Your task to perform on an android device: open app "Pluto TV - Live TV and Movies" (install if not already installed) Image 0: 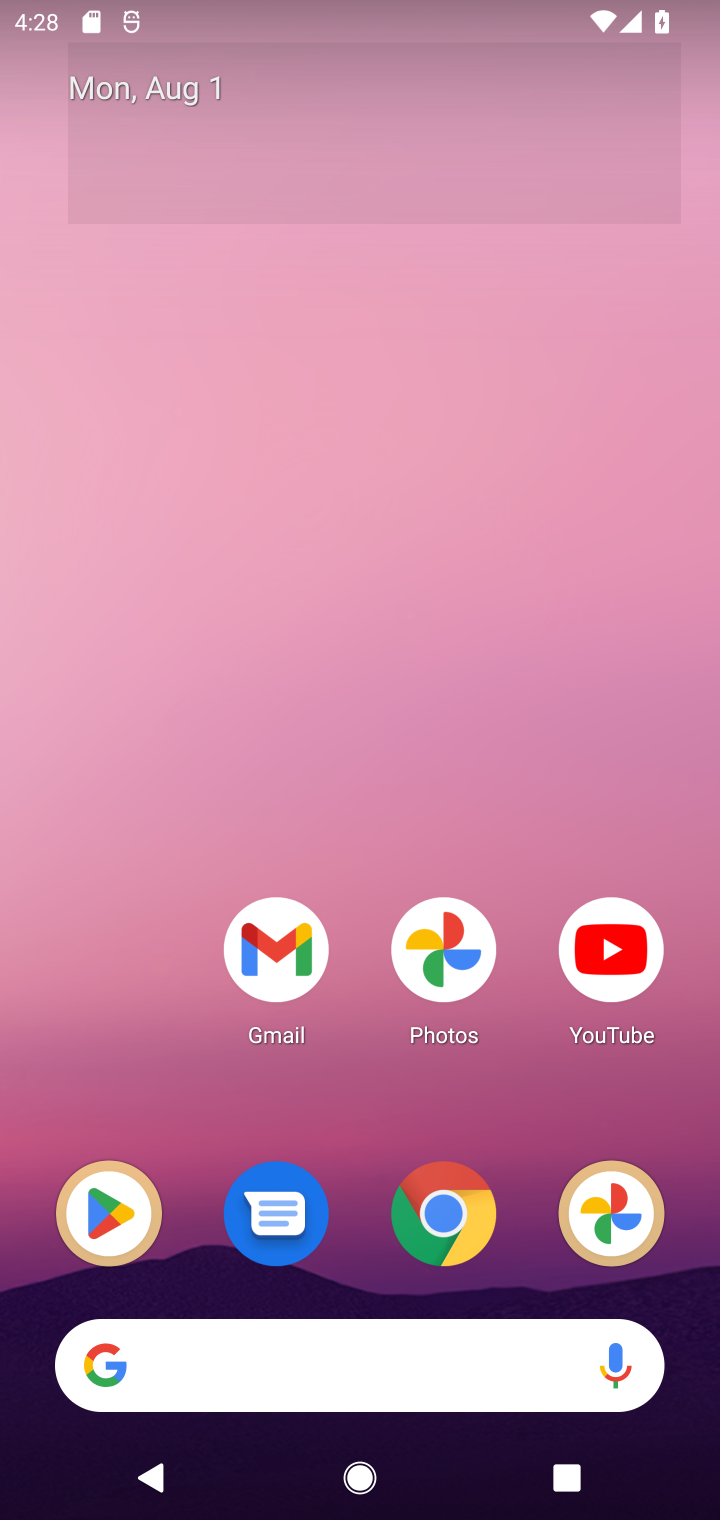
Step 0: drag from (540, 1096) to (527, 0)
Your task to perform on an android device: open app "Pluto TV - Live TV and Movies" (install if not already installed) Image 1: 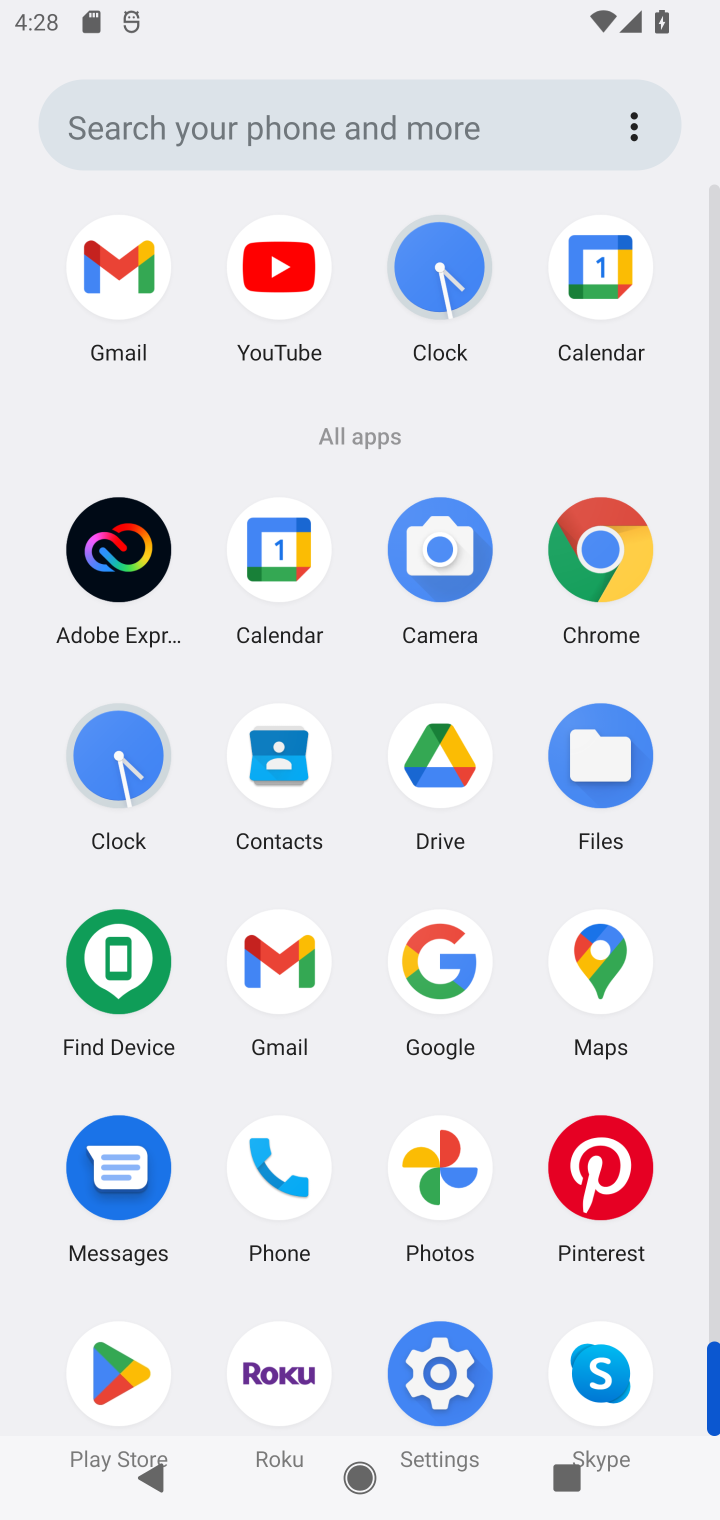
Step 1: click (115, 1364)
Your task to perform on an android device: open app "Pluto TV - Live TV and Movies" (install if not already installed) Image 2: 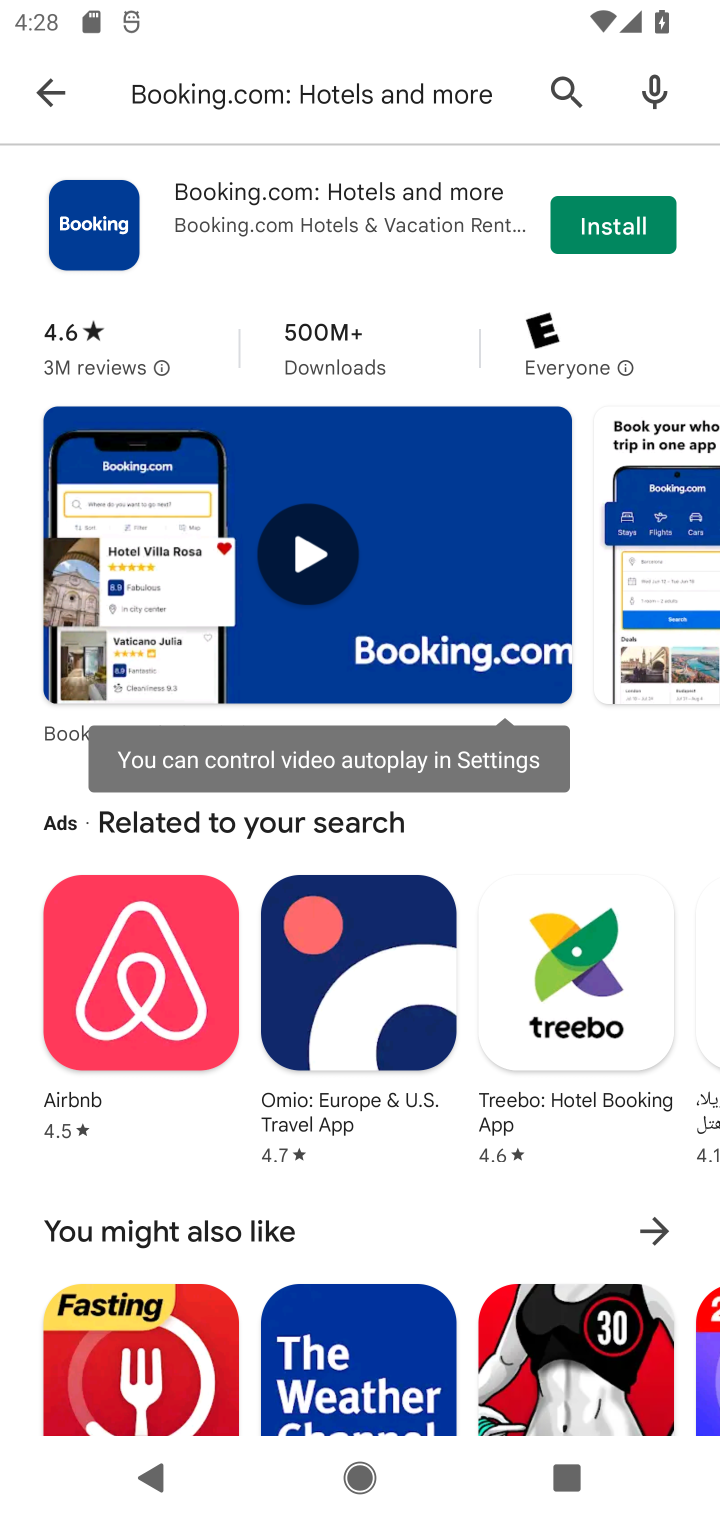
Step 2: click (412, 98)
Your task to perform on an android device: open app "Pluto TV - Live TV and Movies" (install if not already installed) Image 3: 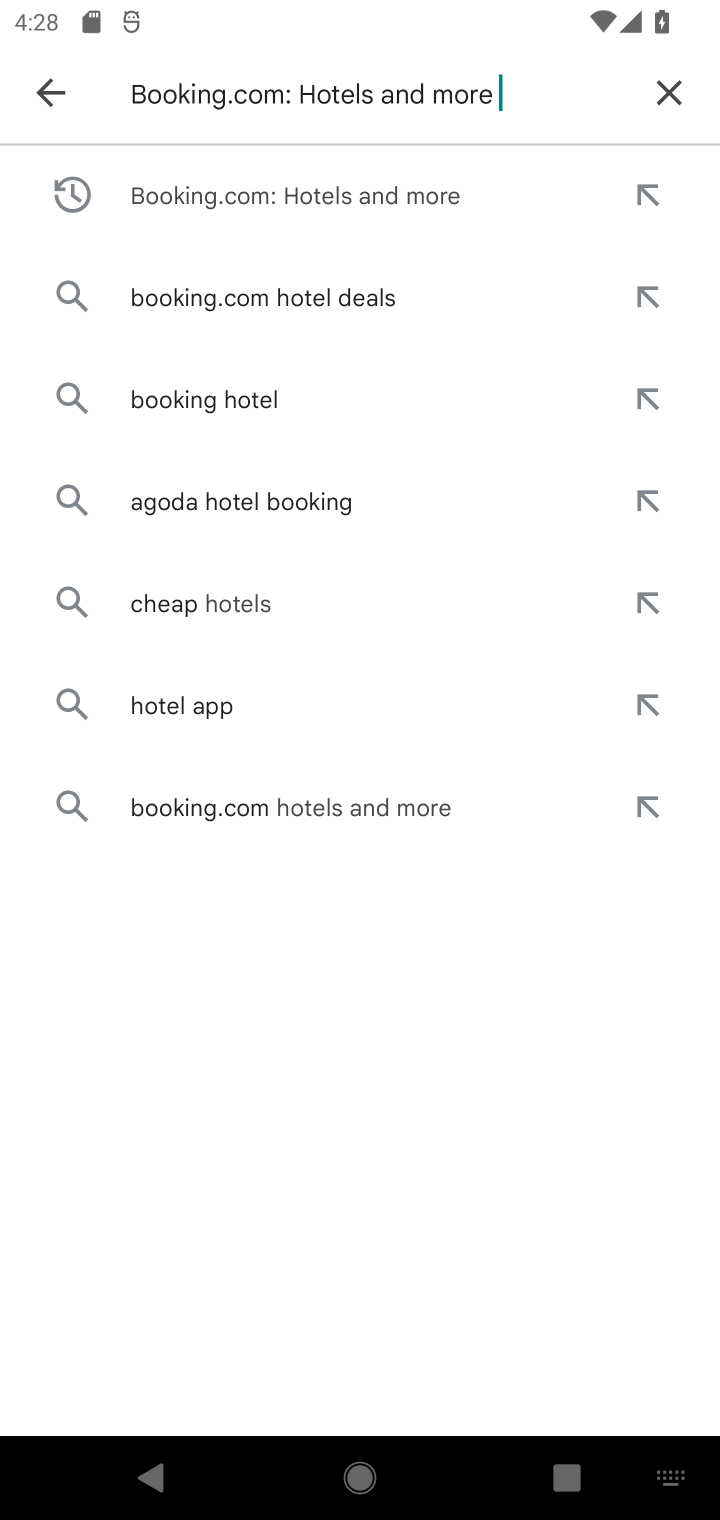
Step 3: click (662, 99)
Your task to perform on an android device: open app "Pluto TV - Live TV and Movies" (install if not already installed) Image 4: 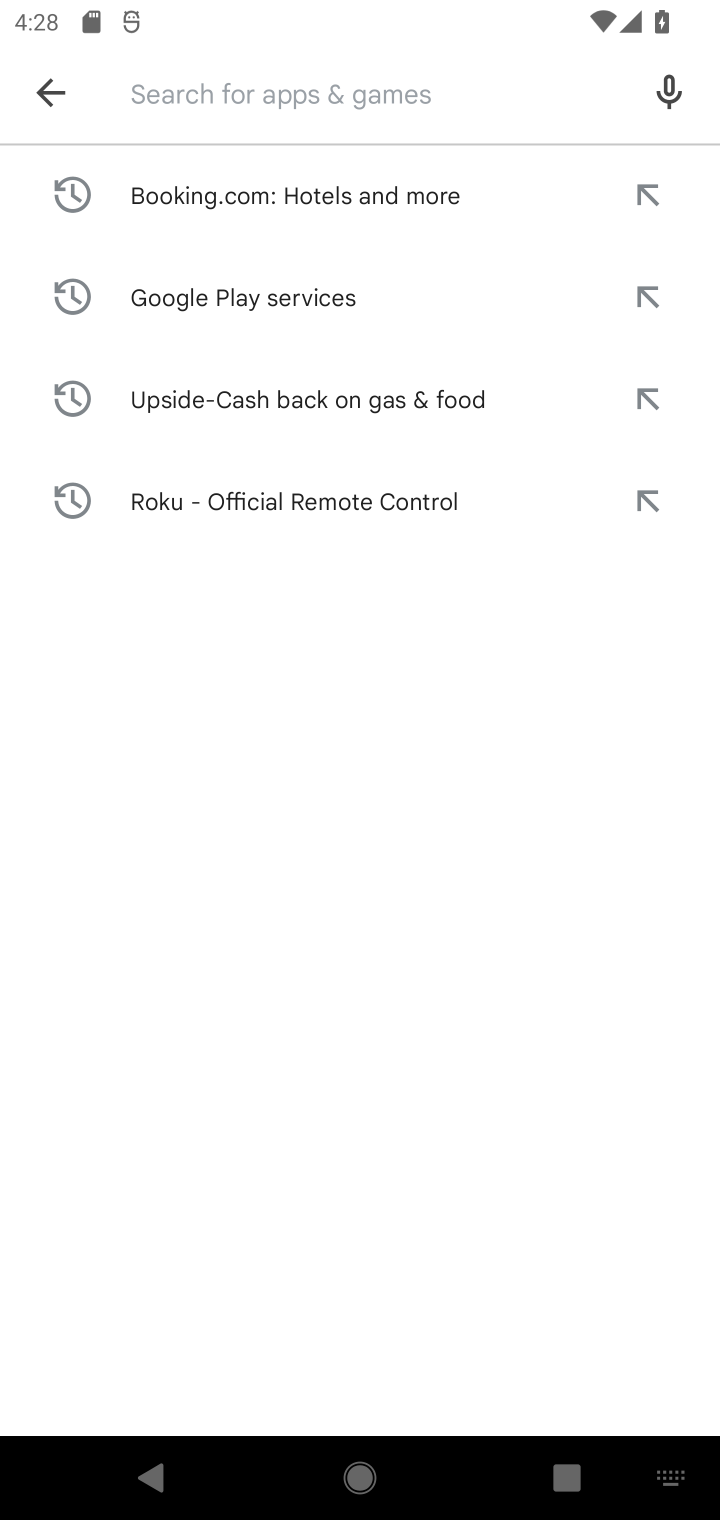
Step 4: type "Pluto TV - Live TV and Movies"
Your task to perform on an android device: open app "Pluto TV - Live TV and Movies" (install if not already installed) Image 5: 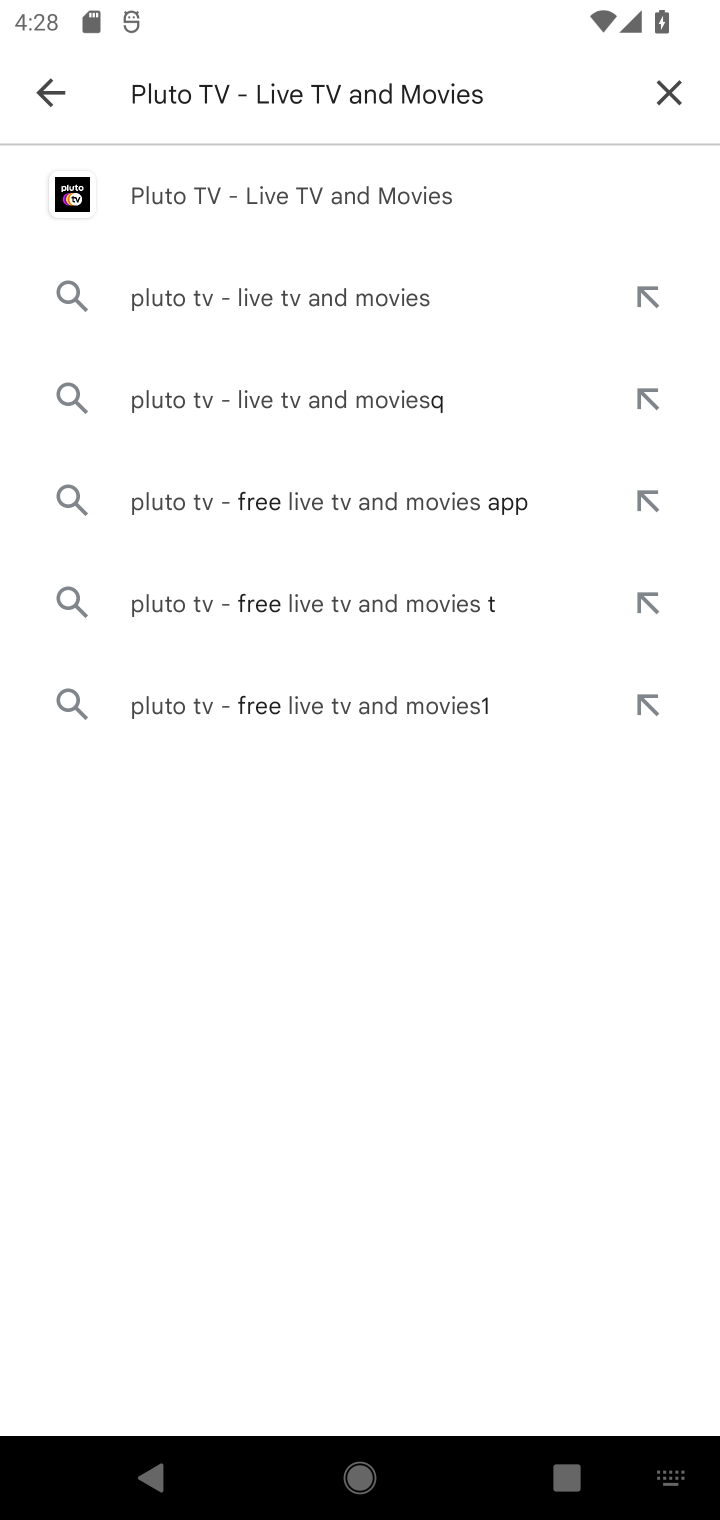
Step 5: click (257, 194)
Your task to perform on an android device: open app "Pluto TV - Live TV and Movies" (install if not already installed) Image 6: 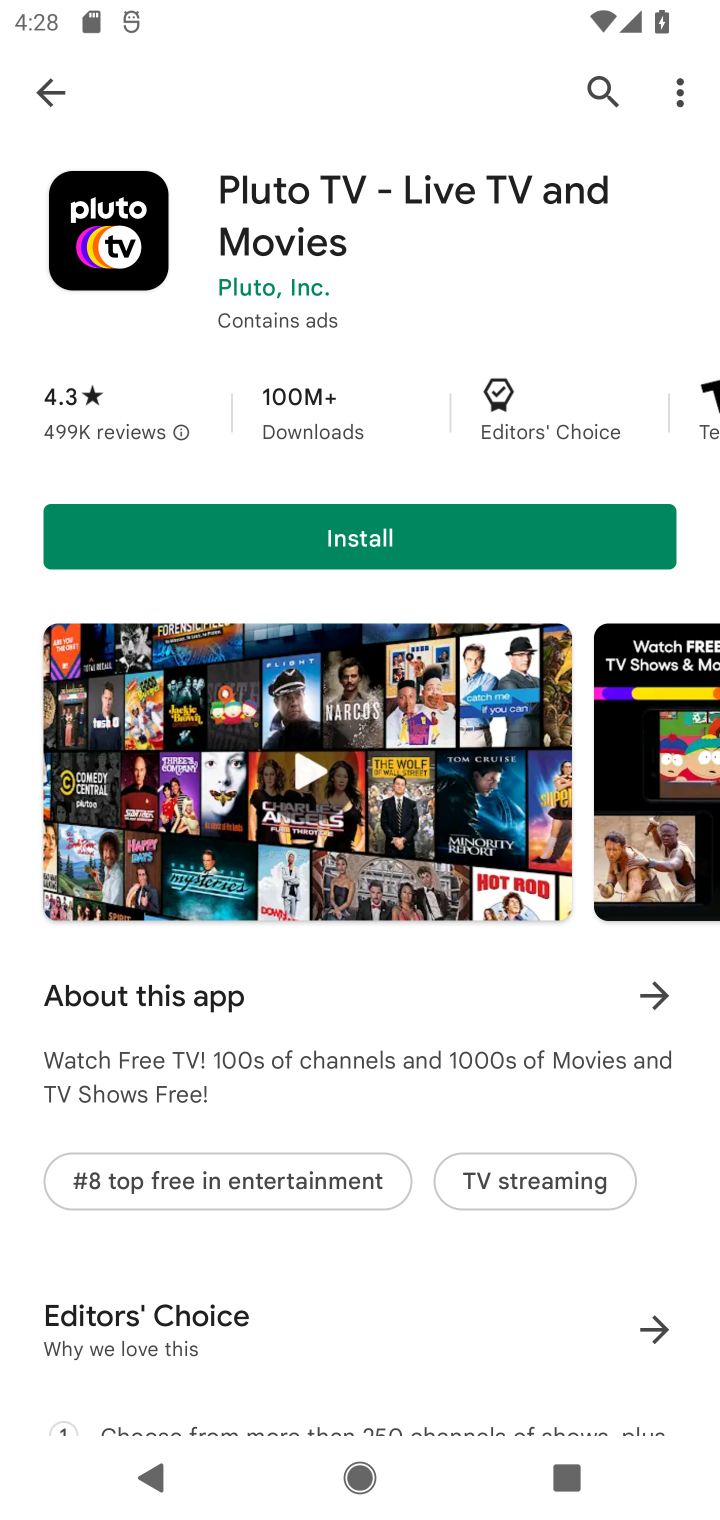
Step 6: click (443, 531)
Your task to perform on an android device: open app "Pluto TV - Live TV and Movies" (install if not already installed) Image 7: 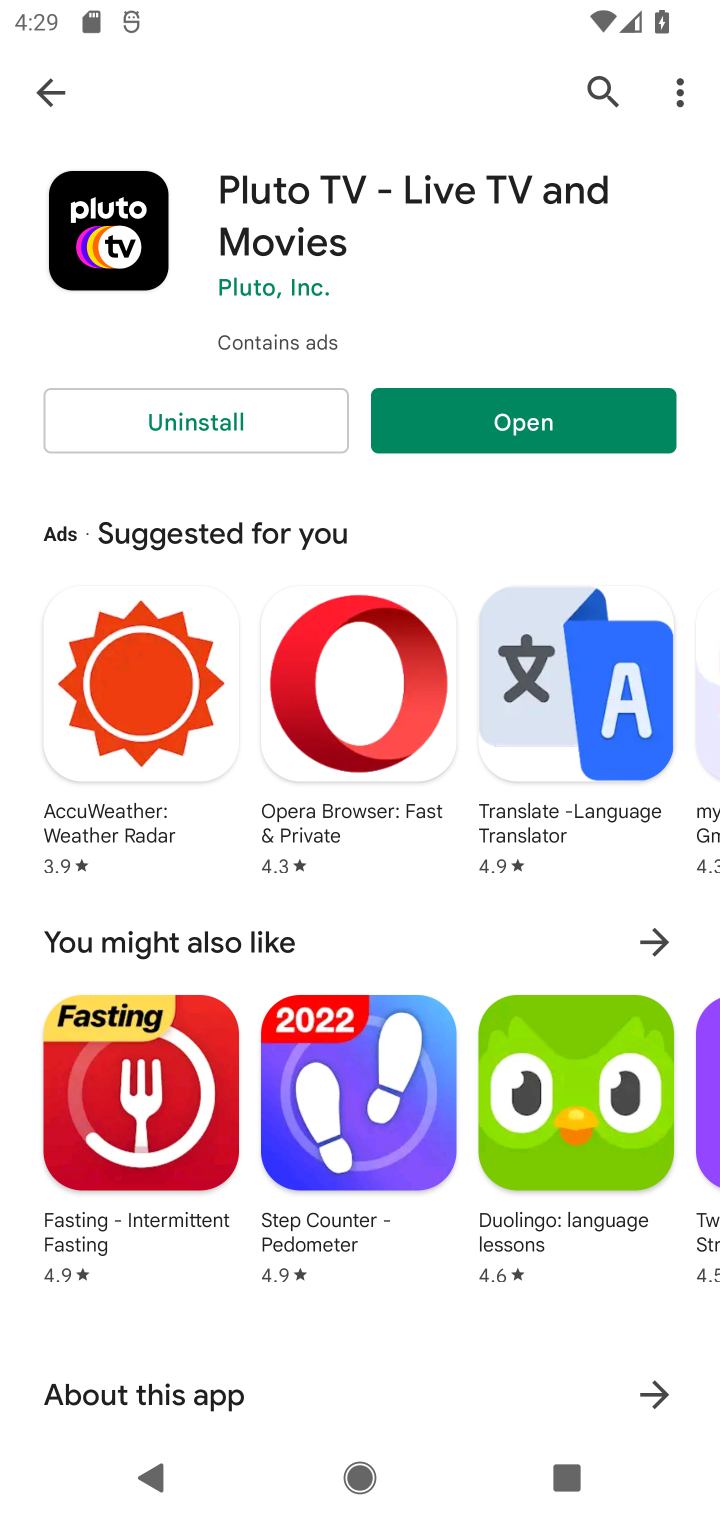
Step 7: click (531, 437)
Your task to perform on an android device: open app "Pluto TV - Live TV and Movies" (install if not already installed) Image 8: 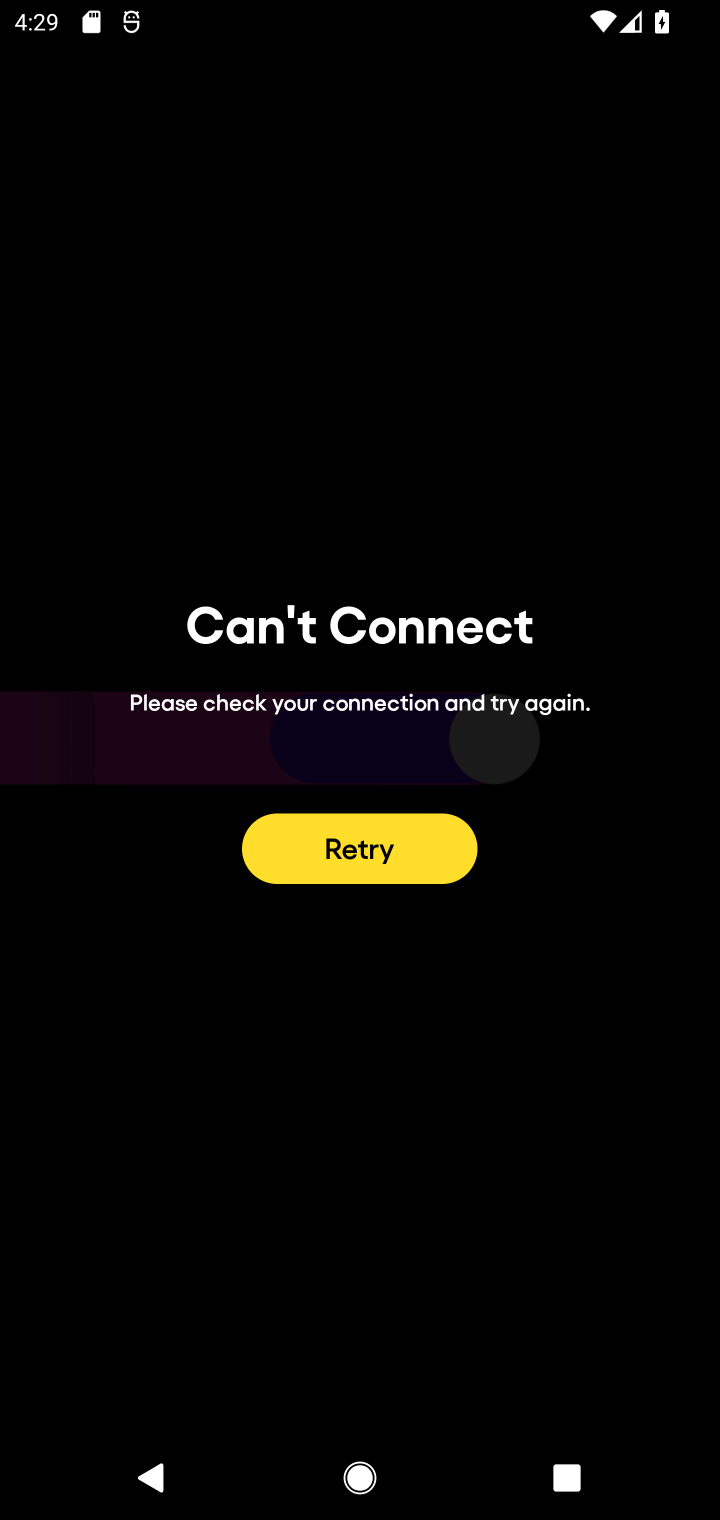
Step 8: task complete